Your task to perform on an android device: Search for pizza restaurants on Maps Image 0: 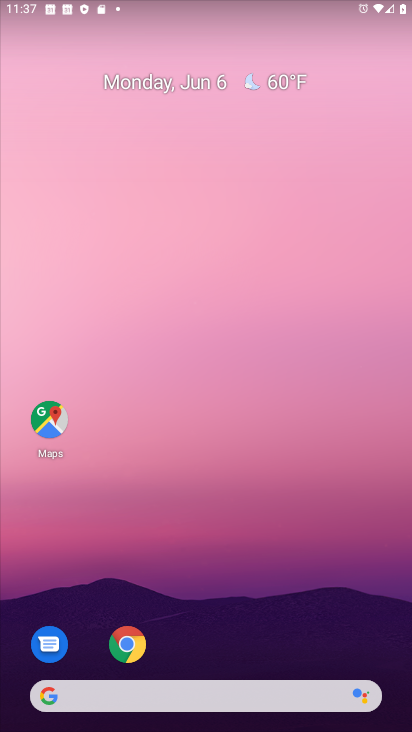
Step 0: click (37, 417)
Your task to perform on an android device: Search for pizza restaurants on Maps Image 1: 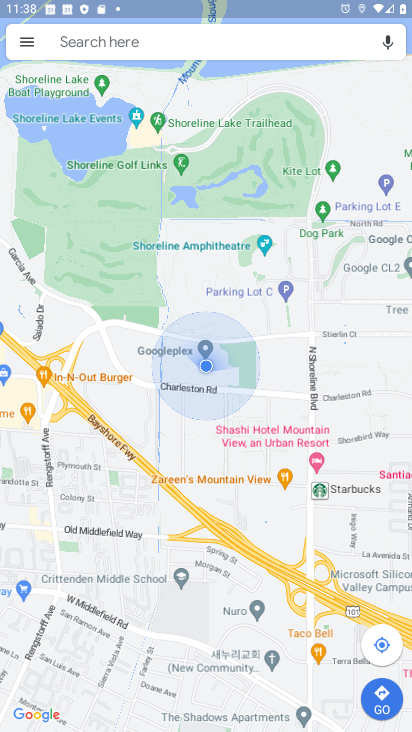
Step 1: click (121, 71)
Your task to perform on an android device: Search for pizza restaurants on Maps Image 2: 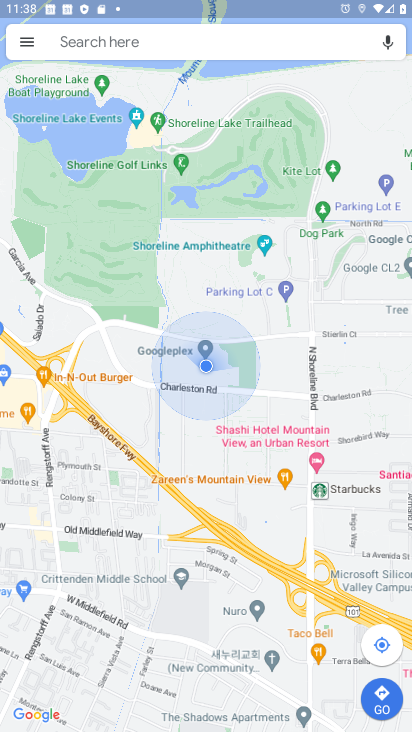
Step 2: click (123, 56)
Your task to perform on an android device: Search for pizza restaurants on Maps Image 3: 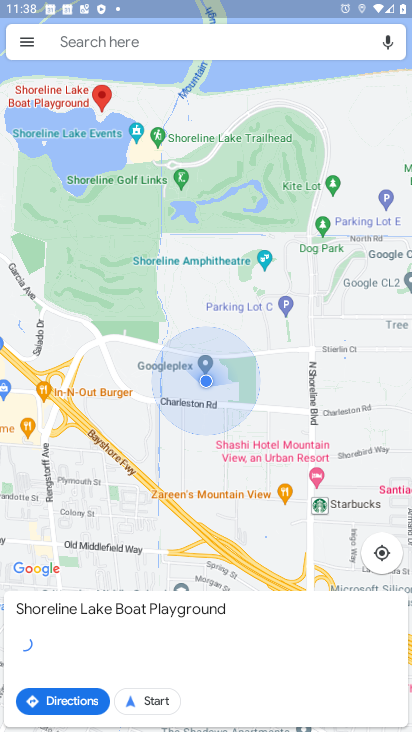
Step 3: click (220, 49)
Your task to perform on an android device: Search for pizza restaurants on Maps Image 4: 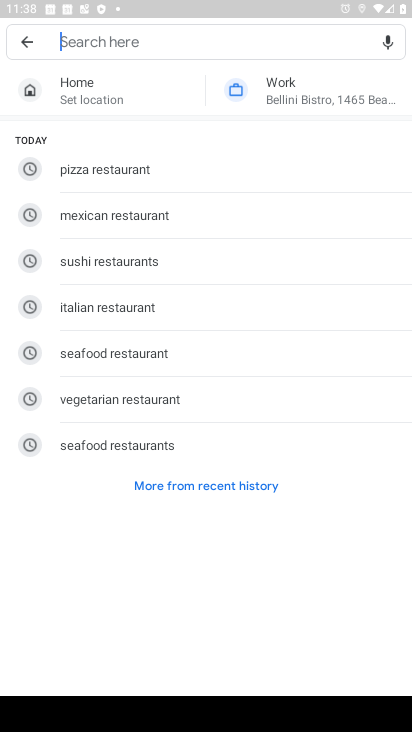
Step 4: click (139, 170)
Your task to perform on an android device: Search for pizza restaurants on Maps Image 5: 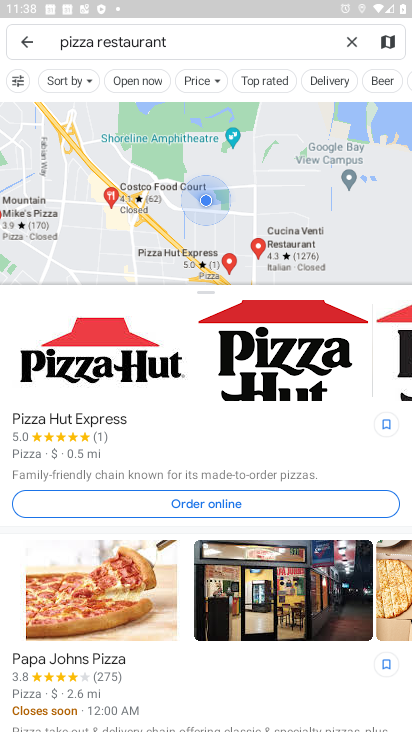
Step 5: task complete